Your task to perform on an android device: open the mobile data screen to see how much data has been used Image 0: 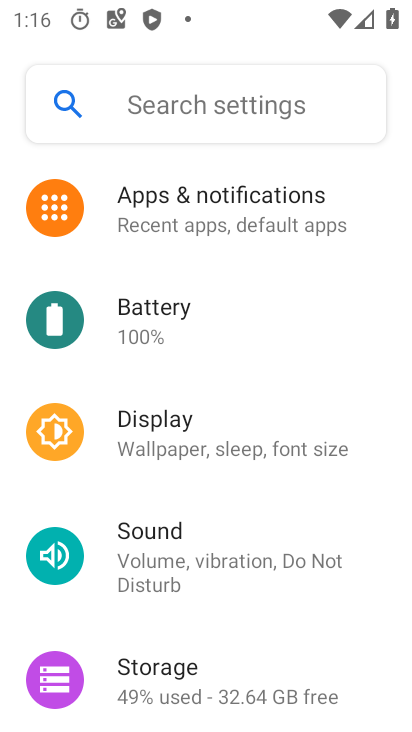
Step 0: press home button
Your task to perform on an android device: open the mobile data screen to see how much data has been used Image 1: 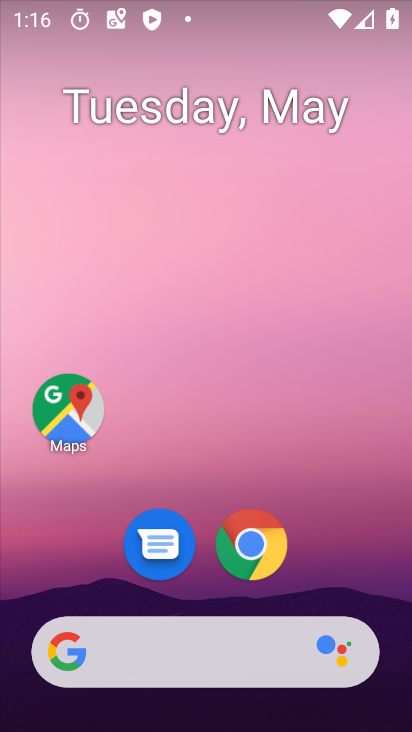
Step 1: drag from (119, 706) to (136, 9)
Your task to perform on an android device: open the mobile data screen to see how much data has been used Image 2: 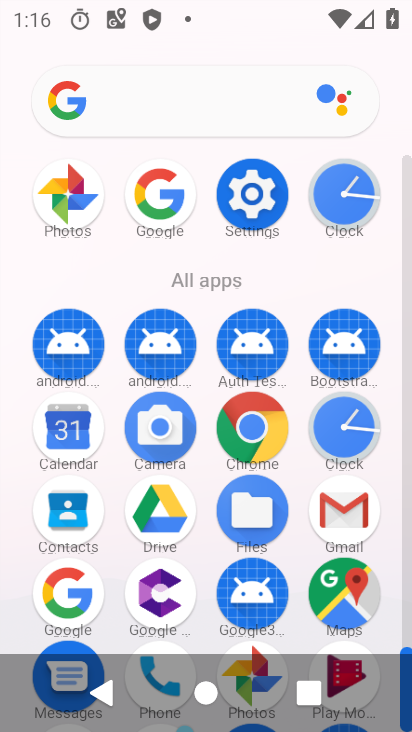
Step 2: click (247, 198)
Your task to perform on an android device: open the mobile data screen to see how much data has been used Image 3: 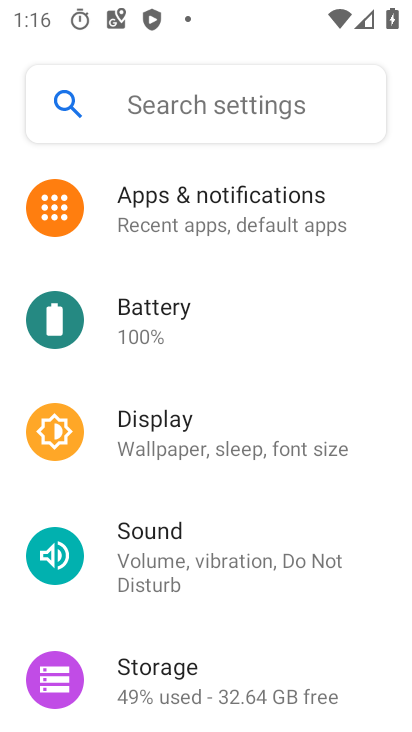
Step 3: drag from (270, 337) to (275, 728)
Your task to perform on an android device: open the mobile data screen to see how much data has been used Image 4: 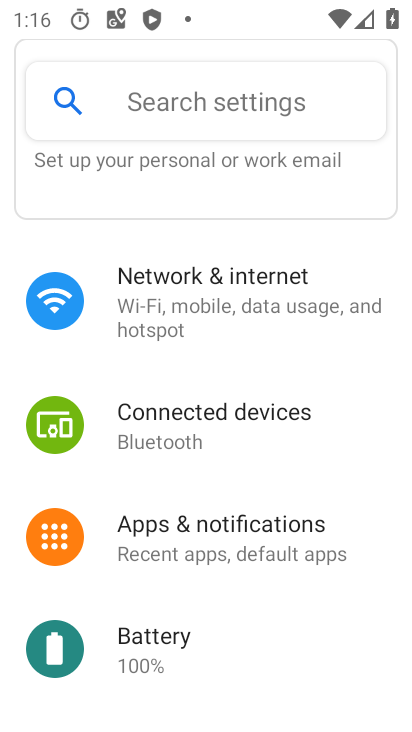
Step 4: click (250, 319)
Your task to perform on an android device: open the mobile data screen to see how much data has been used Image 5: 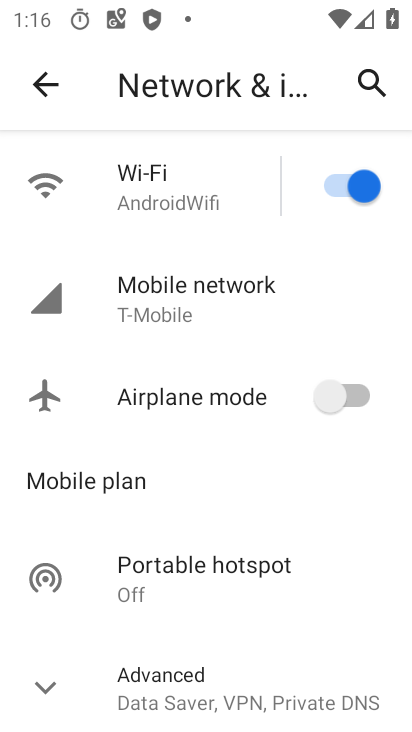
Step 5: click (182, 322)
Your task to perform on an android device: open the mobile data screen to see how much data has been used Image 6: 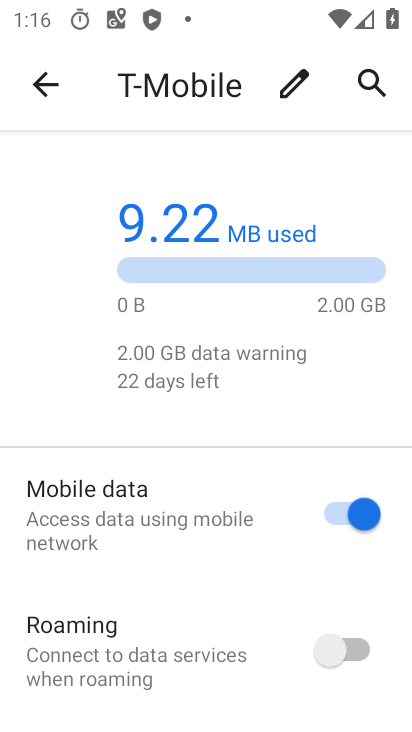
Step 6: task complete